Your task to perform on an android device: delete a single message in the gmail app Image 0: 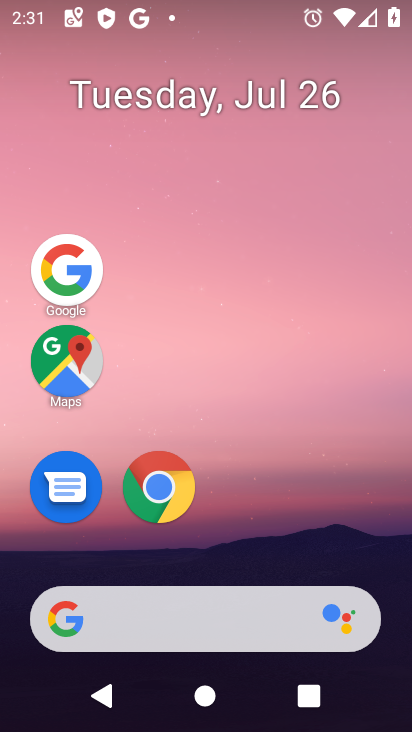
Step 0: drag from (176, 569) to (354, 476)
Your task to perform on an android device: delete a single message in the gmail app Image 1: 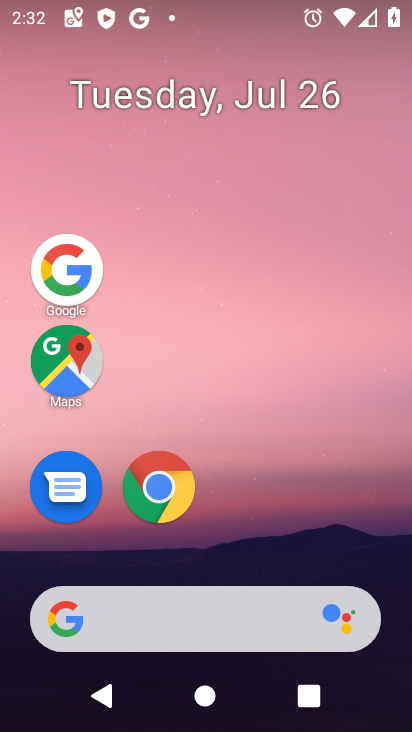
Step 1: drag from (197, 599) to (157, 90)
Your task to perform on an android device: delete a single message in the gmail app Image 2: 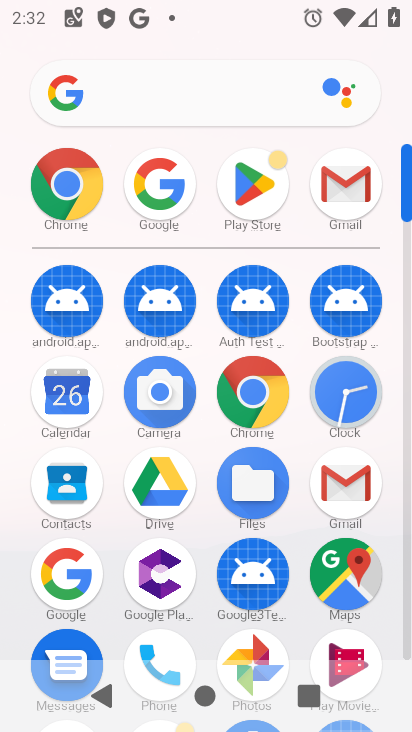
Step 2: click (347, 486)
Your task to perform on an android device: delete a single message in the gmail app Image 3: 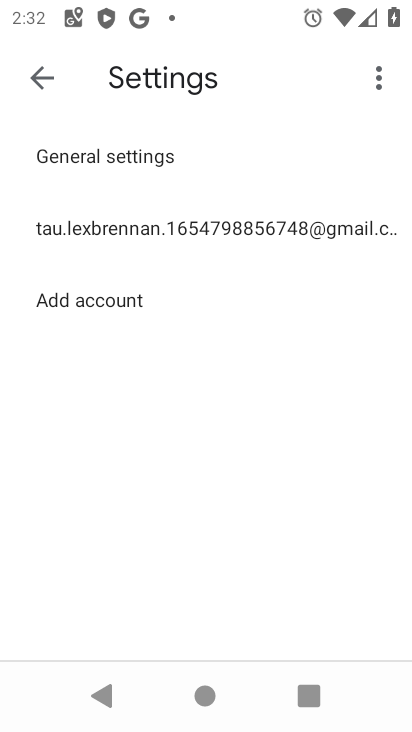
Step 3: click (24, 84)
Your task to perform on an android device: delete a single message in the gmail app Image 4: 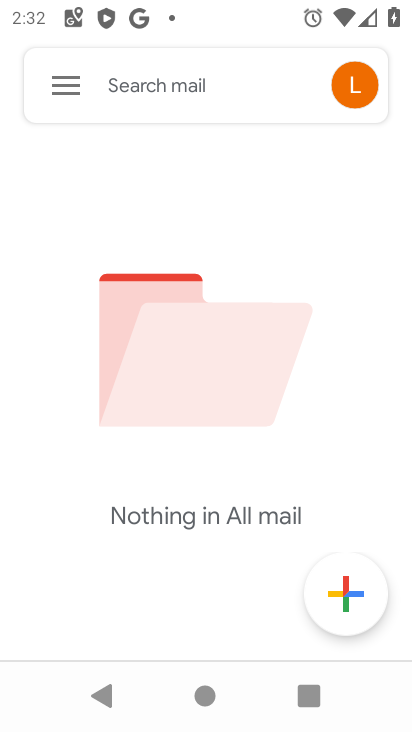
Step 4: click (63, 93)
Your task to perform on an android device: delete a single message in the gmail app Image 5: 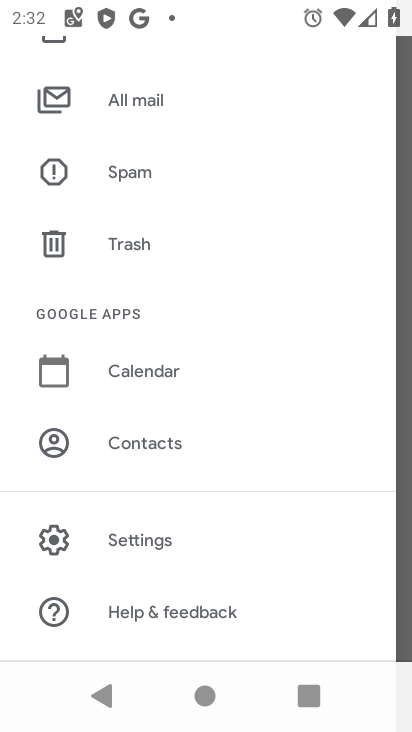
Step 5: click (100, 106)
Your task to perform on an android device: delete a single message in the gmail app Image 6: 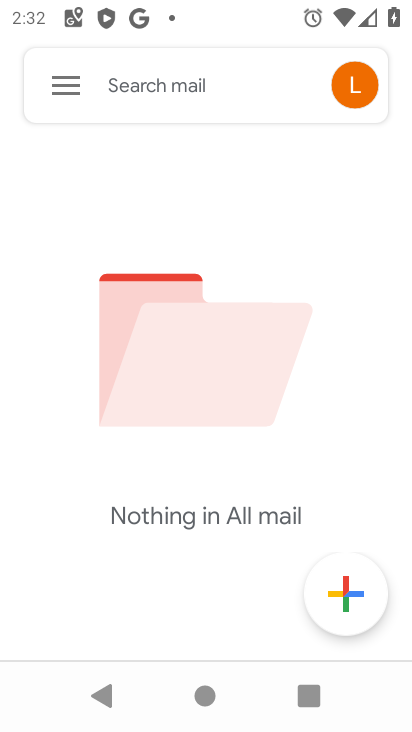
Step 6: task complete